Your task to perform on an android device: delete a single message in the gmail app Image 0: 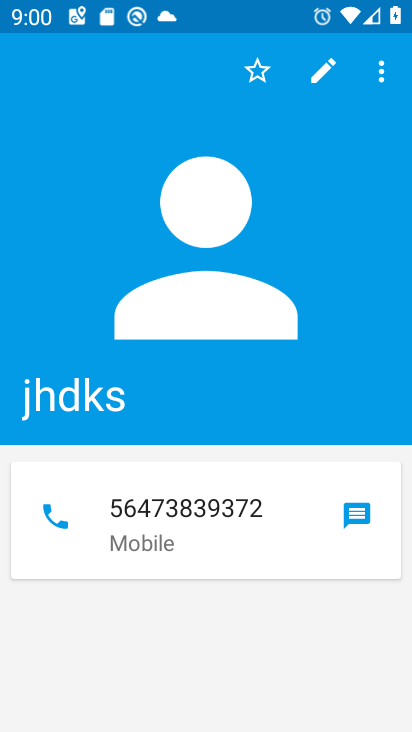
Step 0: press home button
Your task to perform on an android device: delete a single message in the gmail app Image 1: 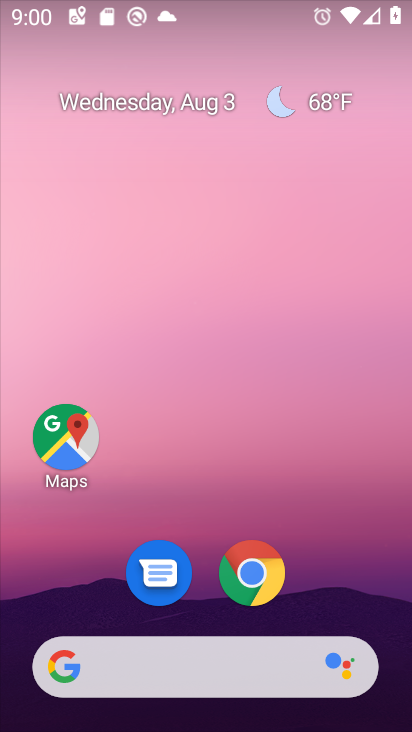
Step 1: drag from (348, 621) to (336, 15)
Your task to perform on an android device: delete a single message in the gmail app Image 2: 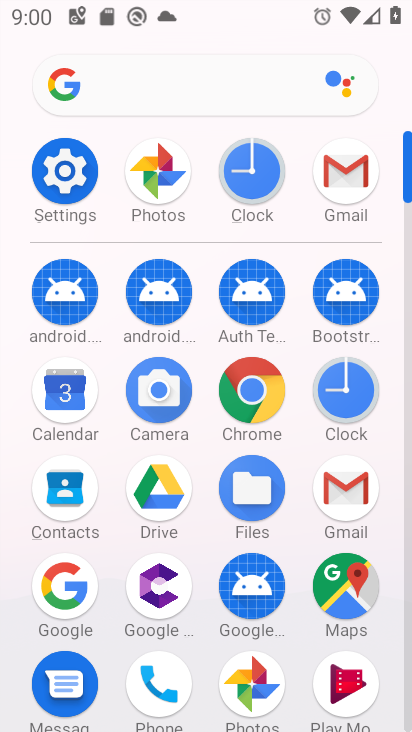
Step 2: click (338, 178)
Your task to perform on an android device: delete a single message in the gmail app Image 3: 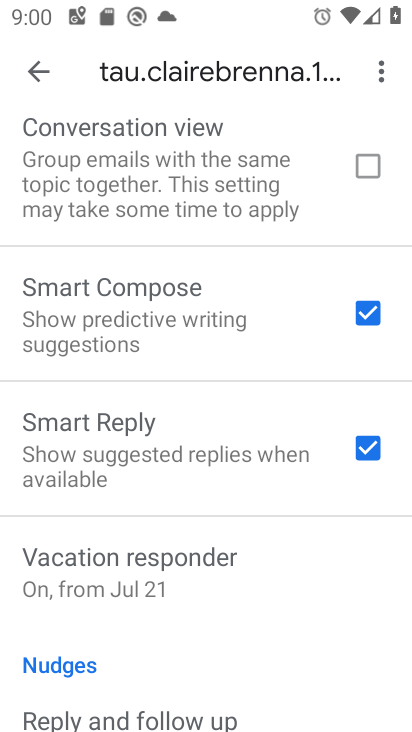
Step 3: click (35, 76)
Your task to perform on an android device: delete a single message in the gmail app Image 4: 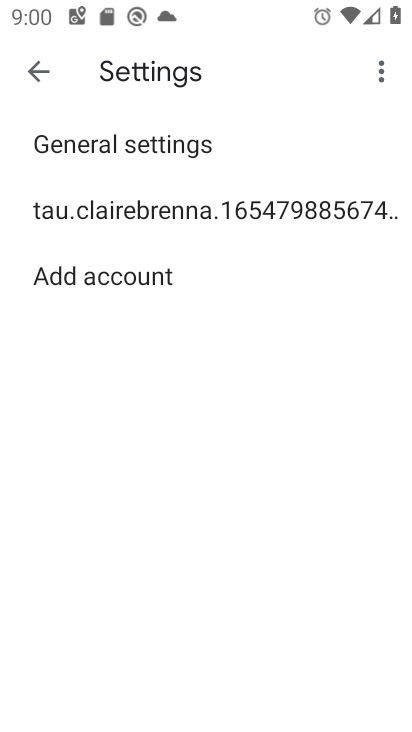
Step 4: click (41, 68)
Your task to perform on an android device: delete a single message in the gmail app Image 5: 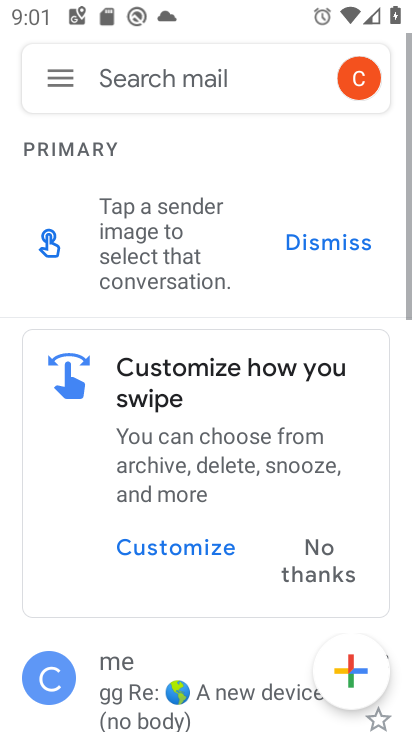
Step 5: drag from (241, 576) to (237, 202)
Your task to perform on an android device: delete a single message in the gmail app Image 6: 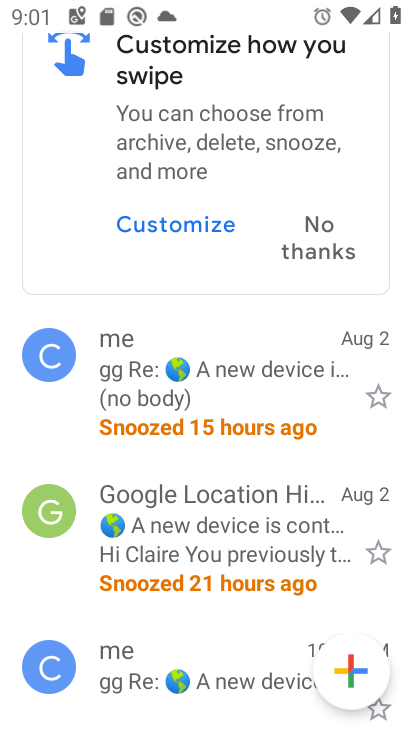
Step 6: click (229, 388)
Your task to perform on an android device: delete a single message in the gmail app Image 7: 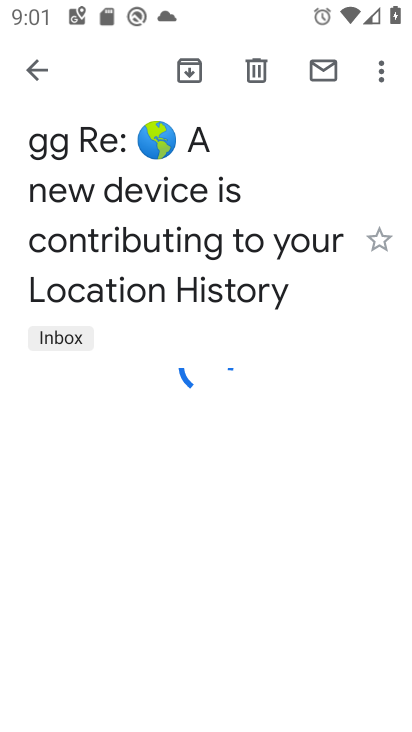
Step 7: click (262, 65)
Your task to perform on an android device: delete a single message in the gmail app Image 8: 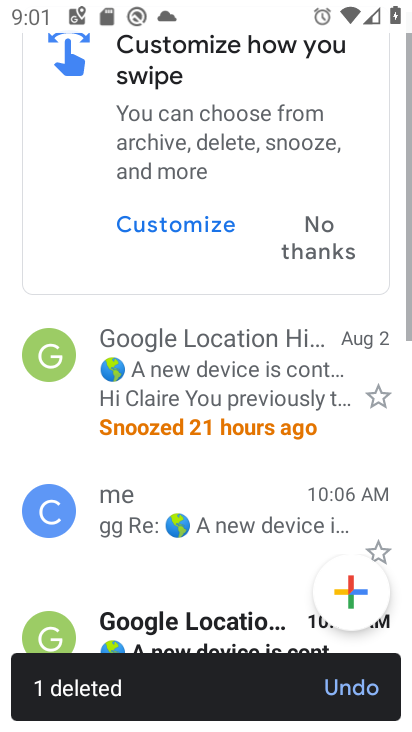
Step 8: task complete